Your task to perform on an android device: Open calendar and show me the first week of next month Image 0: 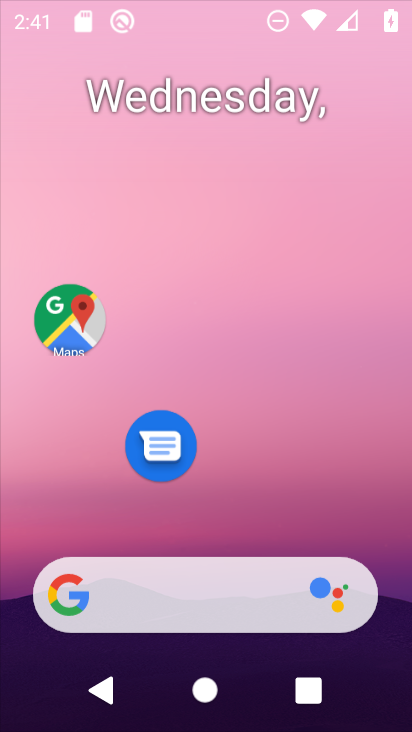
Step 0: click (166, 141)
Your task to perform on an android device: Open calendar and show me the first week of next month Image 1: 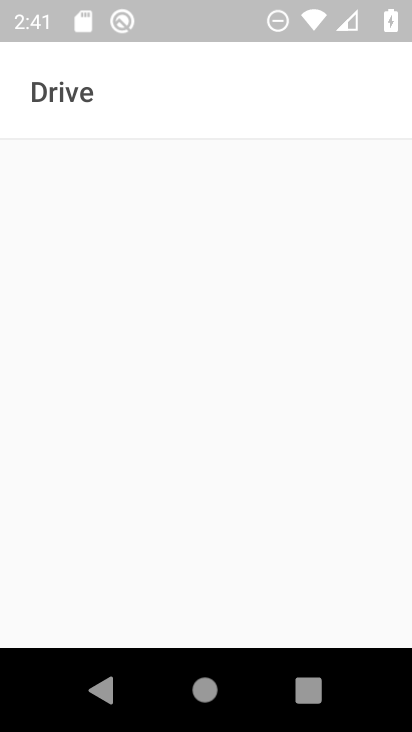
Step 1: type "espn"
Your task to perform on an android device: Open calendar and show me the first week of next month Image 2: 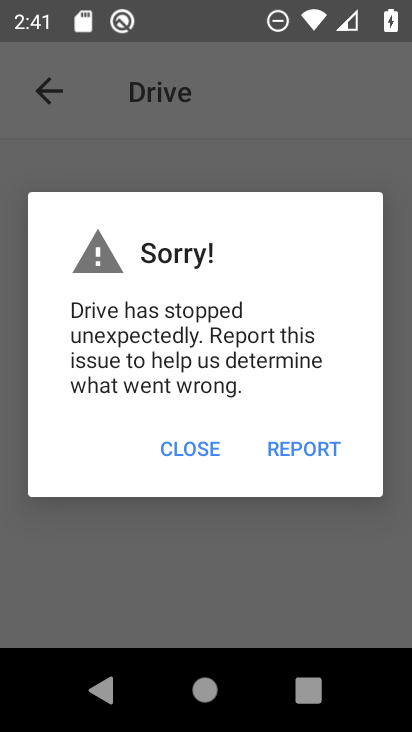
Step 2: press back button
Your task to perform on an android device: Open calendar and show me the first week of next month Image 3: 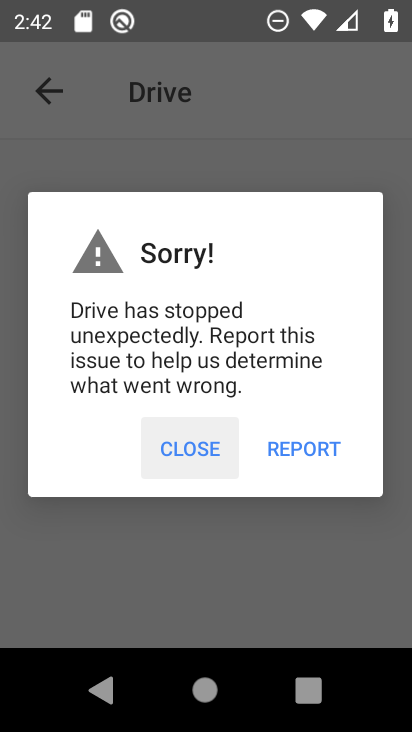
Step 3: press home button
Your task to perform on an android device: Open calendar and show me the first week of next month Image 4: 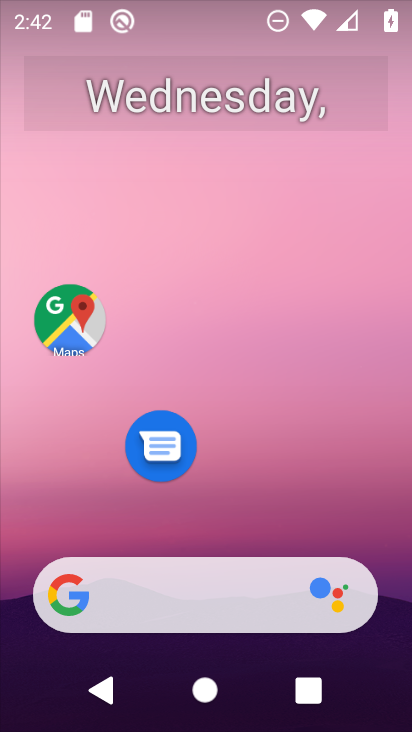
Step 4: drag from (298, 442) to (282, 62)
Your task to perform on an android device: Open calendar and show me the first week of next month Image 5: 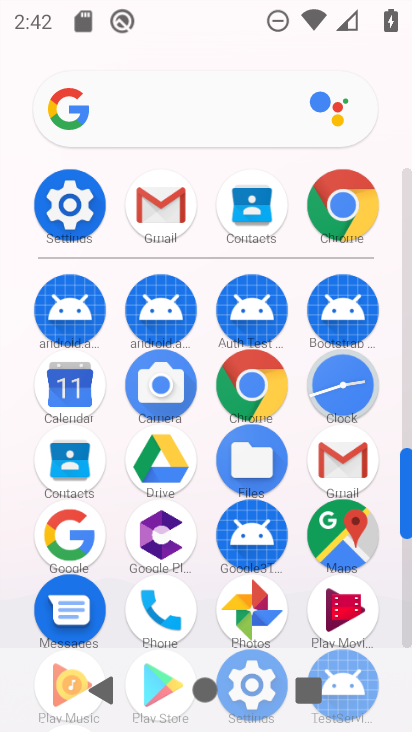
Step 5: click (336, 186)
Your task to perform on an android device: Open calendar and show me the first week of next month Image 6: 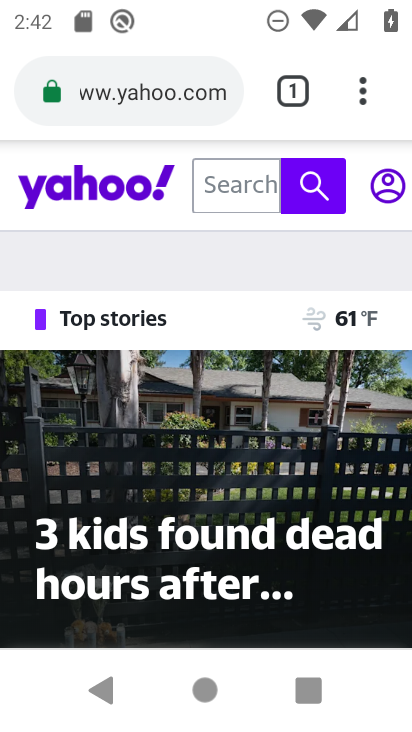
Step 6: click (196, 87)
Your task to perform on an android device: Open calendar and show me the first week of next month Image 7: 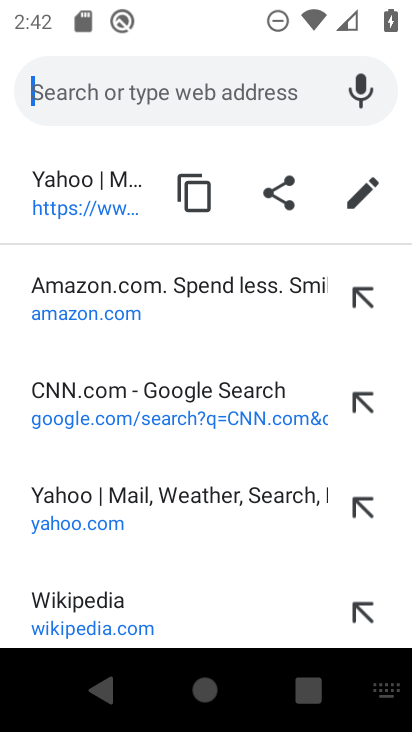
Step 7: type "espn"
Your task to perform on an android device: Open calendar and show me the first week of next month Image 8: 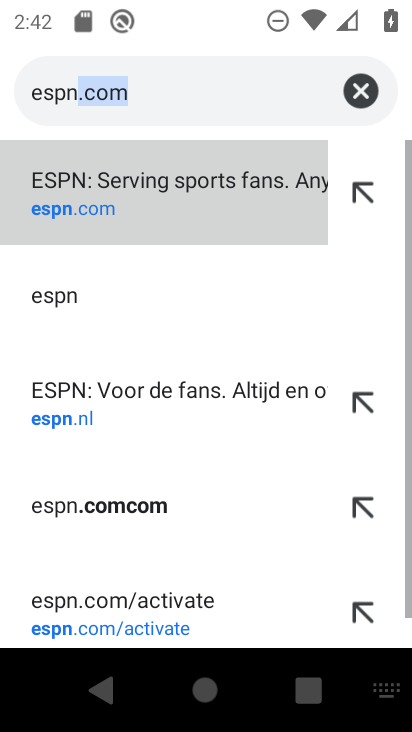
Step 8: click (144, 227)
Your task to perform on an android device: Open calendar and show me the first week of next month Image 9: 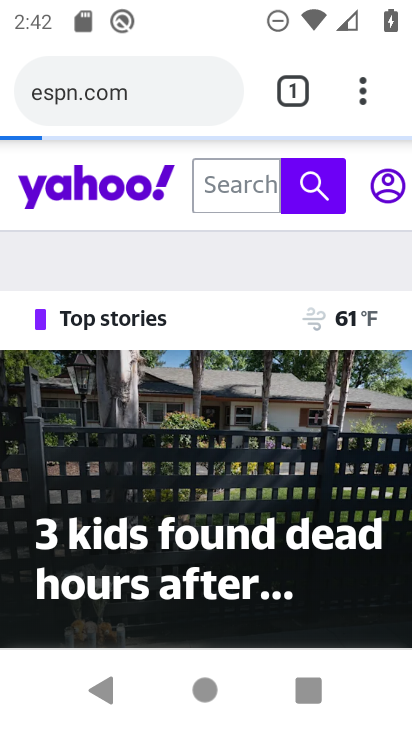
Step 9: task complete